Your task to perform on an android device: Go to ESPN.com Image 0: 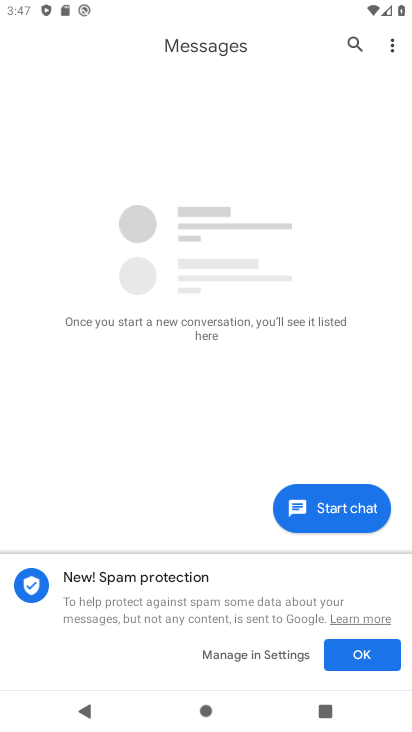
Step 0: press home button
Your task to perform on an android device: Go to ESPN.com Image 1: 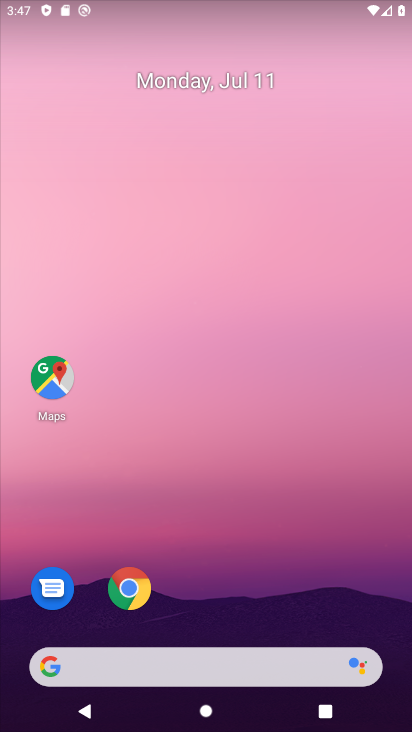
Step 1: drag from (275, 570) to (275, 3)
Your task to perform on an android device: Go to ESPN.com Image 2: 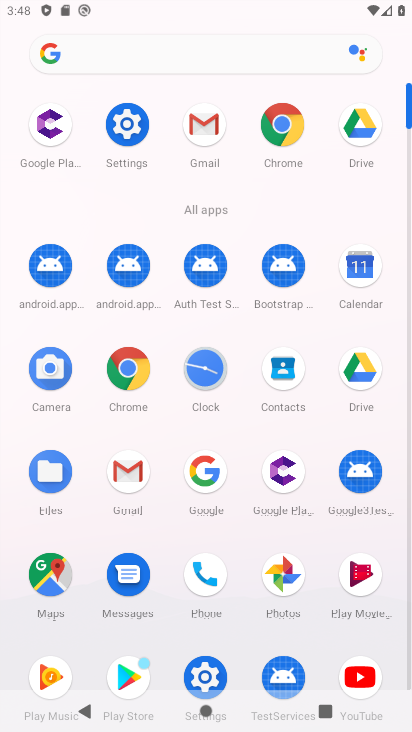
Step 2: click (292, 127)
Your task to perform on an android device: Go to ESPN.com Image 3: 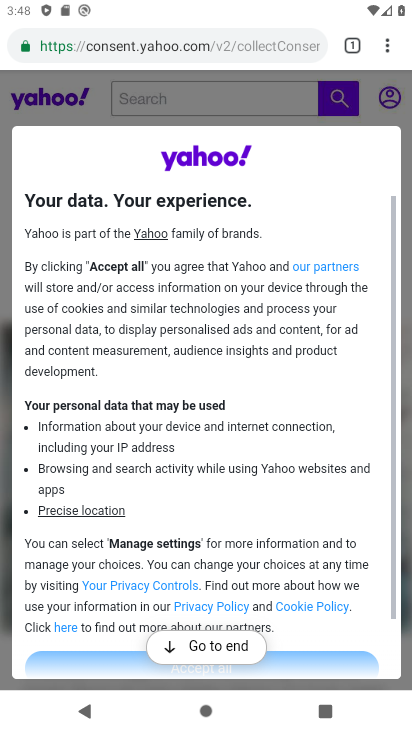
Step 3: press back button
Your task to perform on an android device: Go to ESPN.com Image 4: 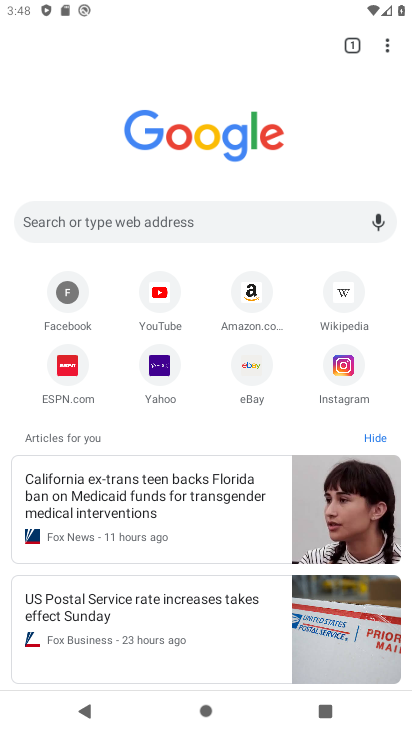
Step 4: click (72, 352)
Your task to perform on an android device: Go to ESPN.com Image 5: 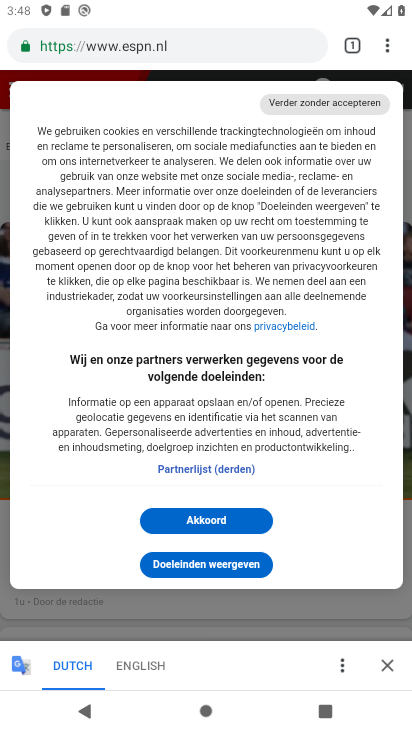
Step 5: task complete